Your task to perform on an android device: delete the emails in spam in the gmail app Image 0: 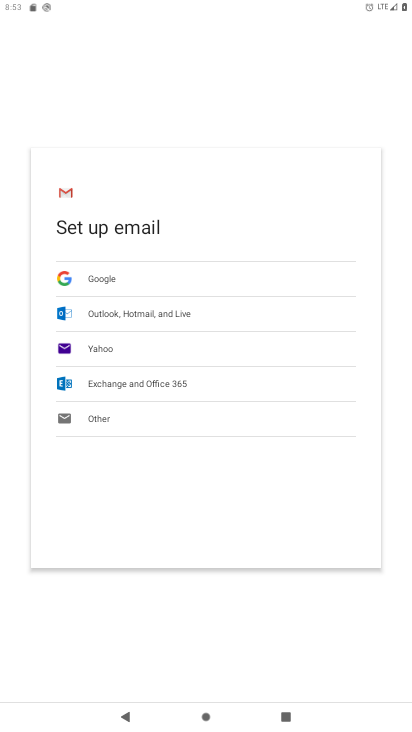
Step 0: press home button
Your task to perform on an android device: delete the emails in spam in the gmail app Image 1: 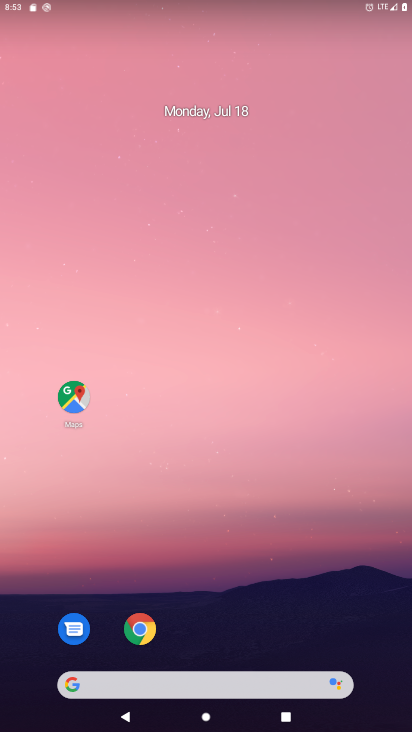
Step 1: drag from (208, 649) to (203, 9)
Your task to perform on an android device: delete the emails in spam in the gmail app Image 2: 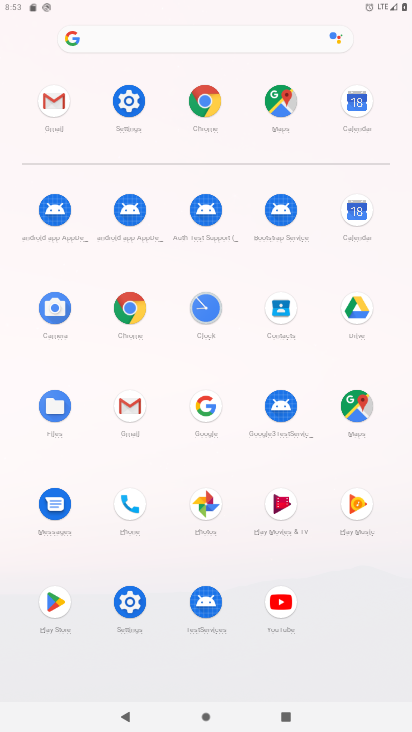
Step 2: click (132, 422)
Your task to perform on an android device: delete the emails in spam in the gmail app Image 3: 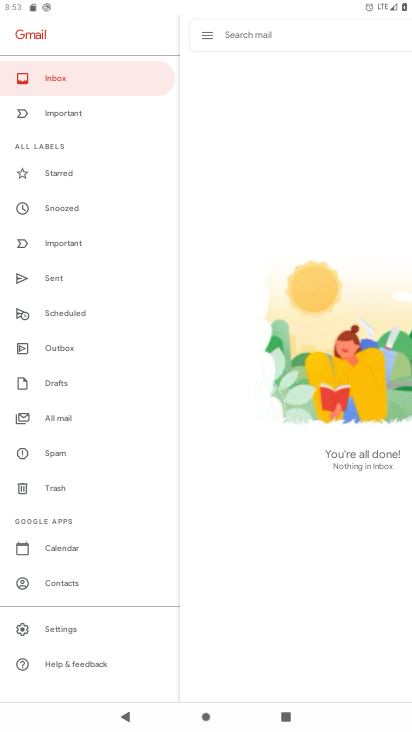
Step 3: click (63, 454)
Your task to perform on an android device: delete the emails in spam in the gmail app Image 4: 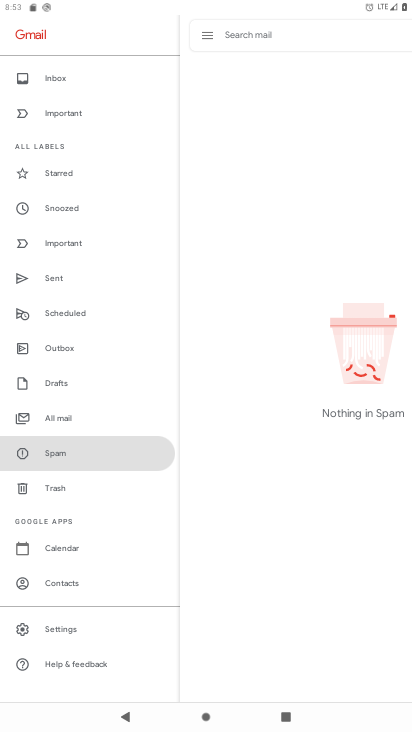
Step 4: task complete